Your task to perform on an android device: Open Chrome and go to settings Image 0: 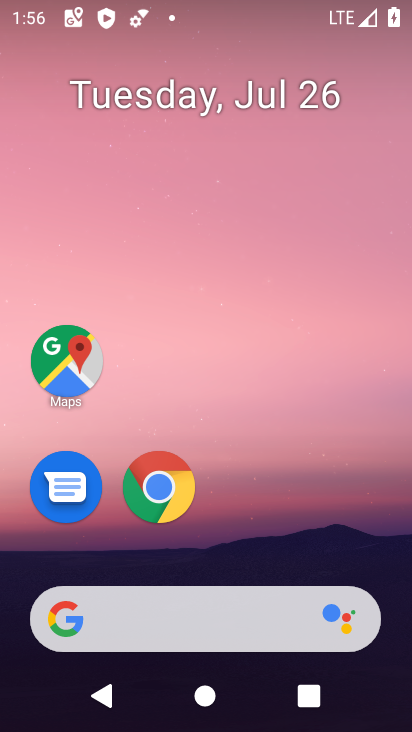
Step 0: drag from (163, 614) to (343, 53)
Your task to perform on an android device: Open Chrome and go to settings Image 1: 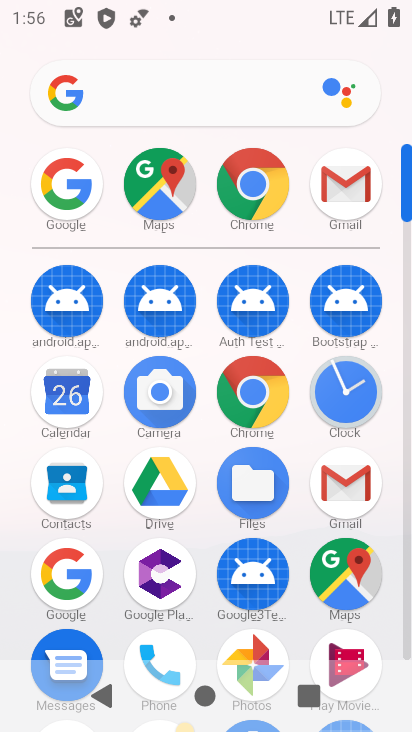
Step 1: click (265, 184)
Your task to perform on an android device: Open Chrome and go to settings Image 2: 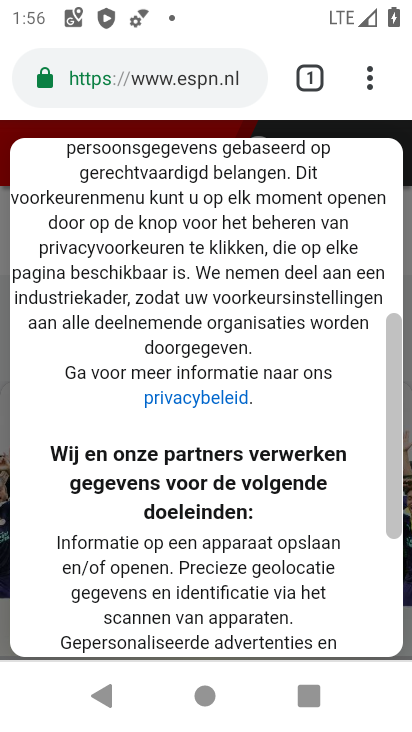
Step 2: click (369, 86)
Your task to perform on an android device: Open Chrome and go to settings Image 3: 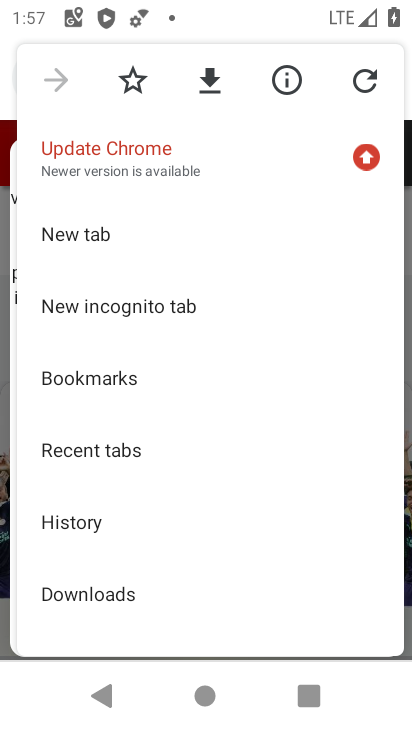
Step 3: drag from (194, 562) to (242, 195)
Your task to perform on an android device: Open Chrome and go to settings Image 4: 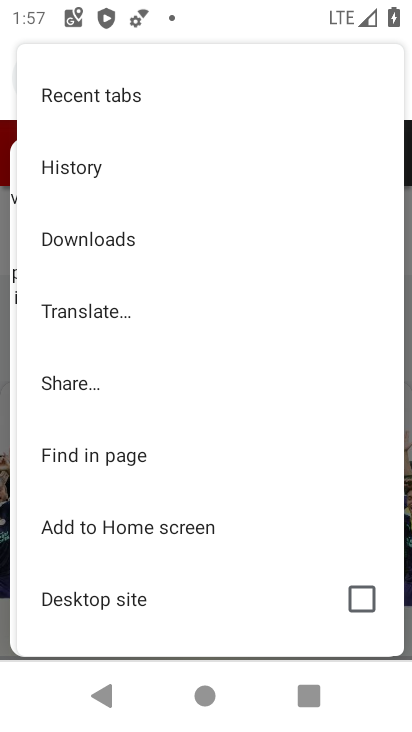
Step 4: drag from (161, 510) to (183, 218)
Your task to perform on an android device: Open Chrome and go to settings Image 5: 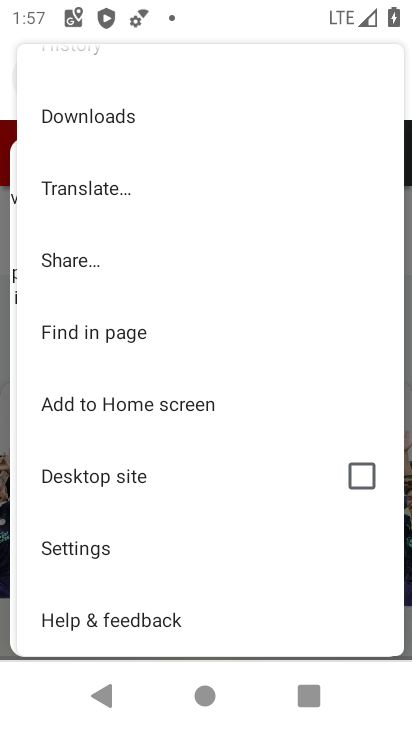
Step 5: click (106, 554)
Your task to perform on an android device: Open Chrome and go to settings Image 6: 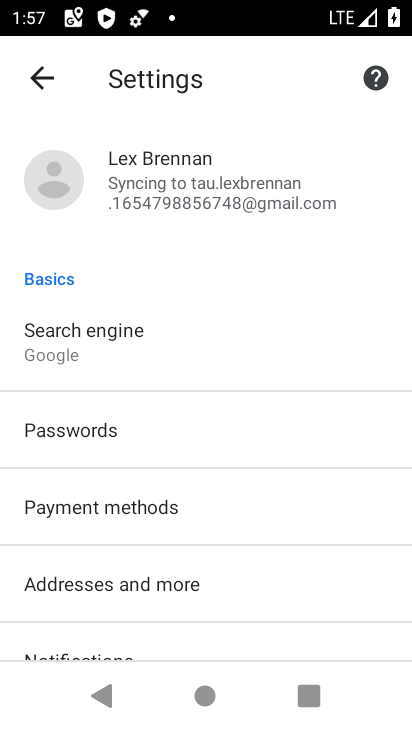
Step 6: task complete